Your task to perform on an android device: check battery use Image 0: 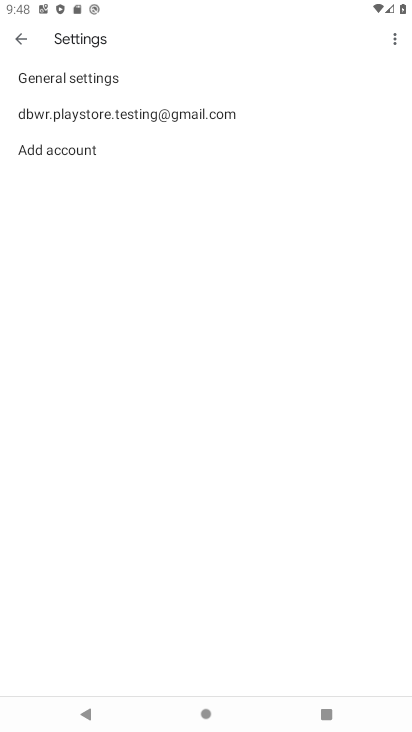
Step 0: press back button
Your task to perform on an android device: check battery use Image 1: 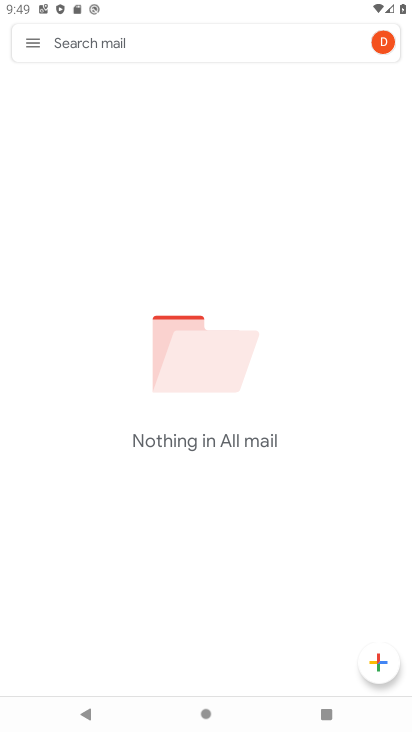
Step 1: click (33, 39)
Your task to perform on an android device: check battery use Image 2: 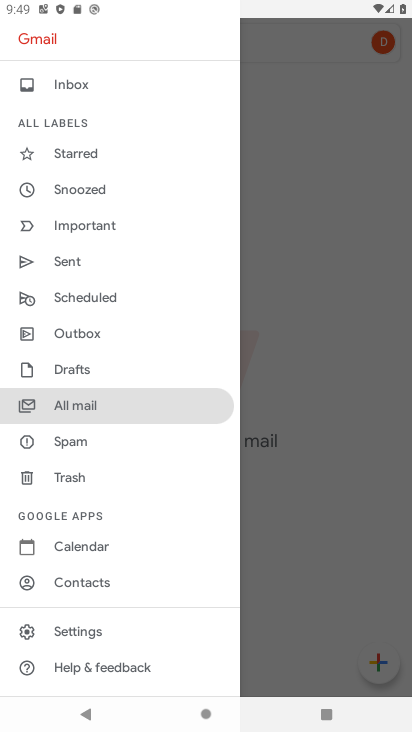
Step 2: press back button
Your task to perform on an android device: check battery use Image 3: 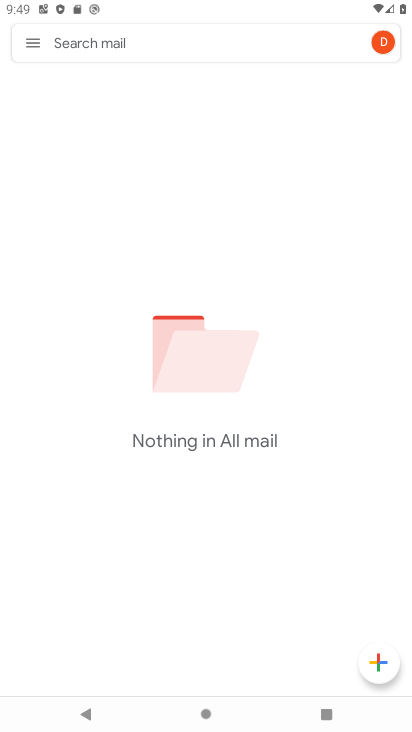
Step 3: press back button
Your task to perform on an android device: check battery use Image 4: 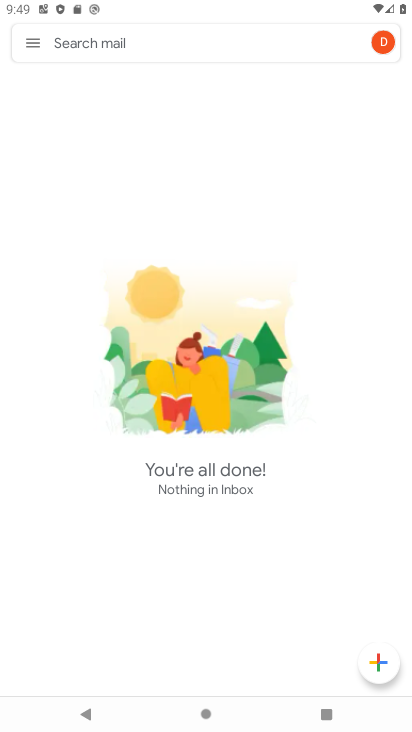
Step 4: press home button
Your task to perform on an android device: check battery use Image 5: 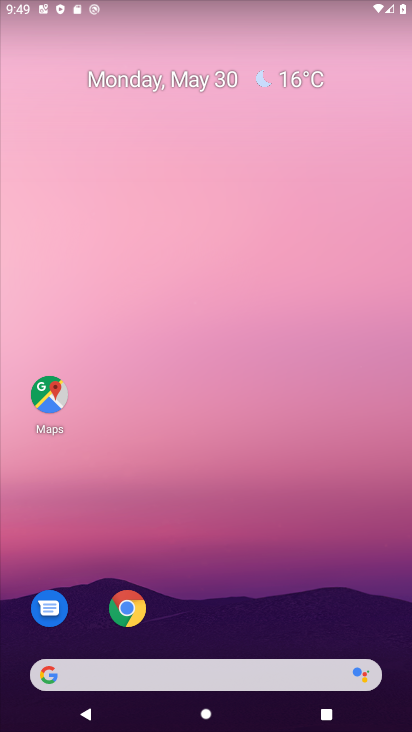
Step 5: drag from (392, 701) to (344, 10)
Your task to perform on an android device: check battery use Image 6: 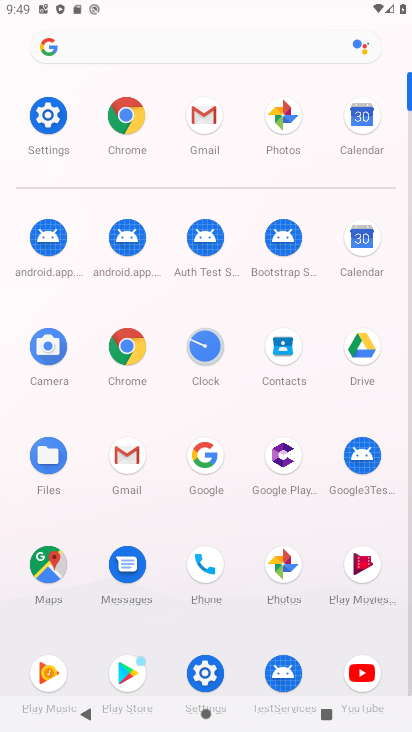
Step 6: click (201, 672)
Your task to perform on an android device: check battery use Image 7: 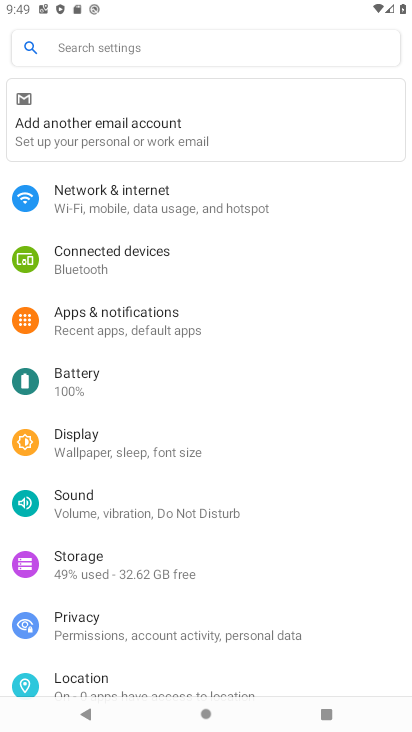
Step 7: click (72, 375)
Your task to perform on an android device: check battery use Image 8: 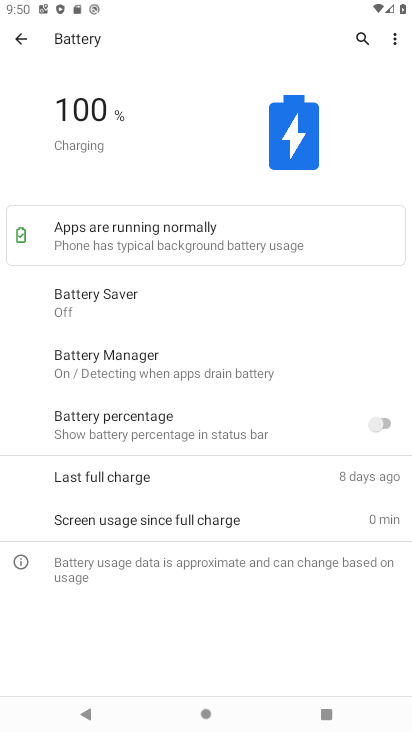
Step 8: click (394, 36)
Your task to perform on an android device: check battery use Image 9: 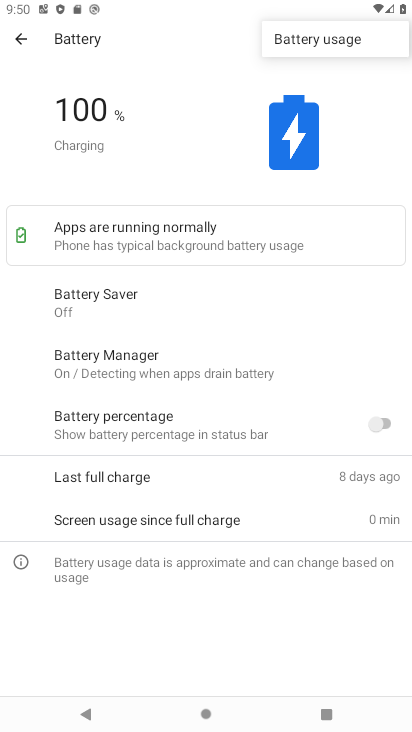
Step 9: click (390, 36)
Your task to perform on an android device: check battery use Image 10: 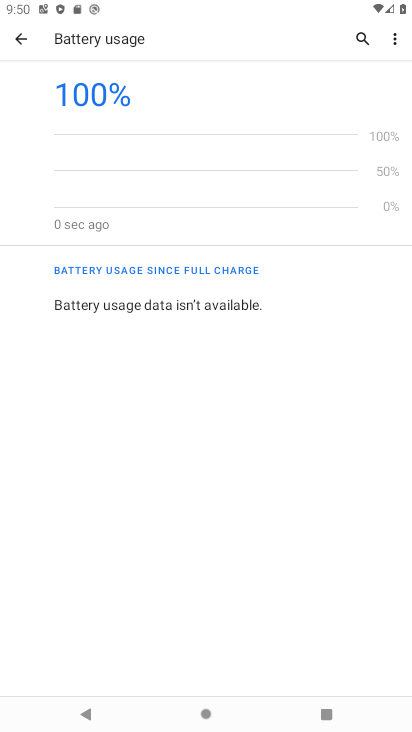
Step 10: task complete